Your task to perform on an android device: Search for sushi restaurants on Maps Image 0: 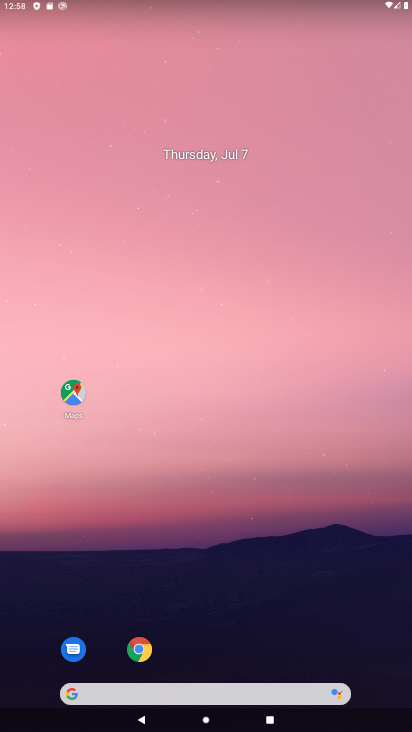
Step 0: drag from (191, 665) to (248, 112)
Your task to perform on an android device: Search for sushi restaurants on Maps Image 1: 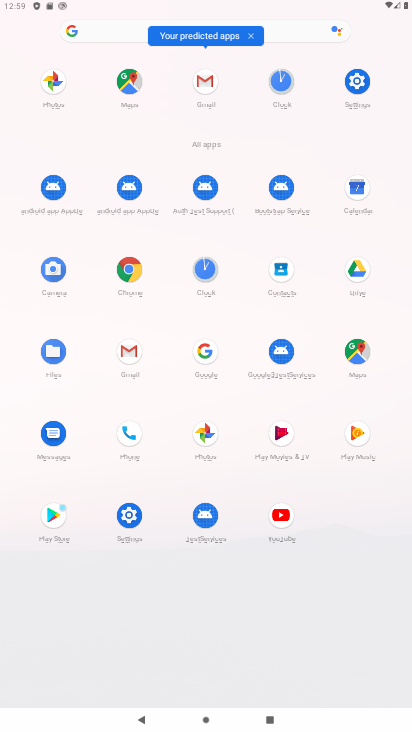
Step 1: click (355, 357)
Your task to perform on an android device: Search for sushi restaurants on Maps Image 2: 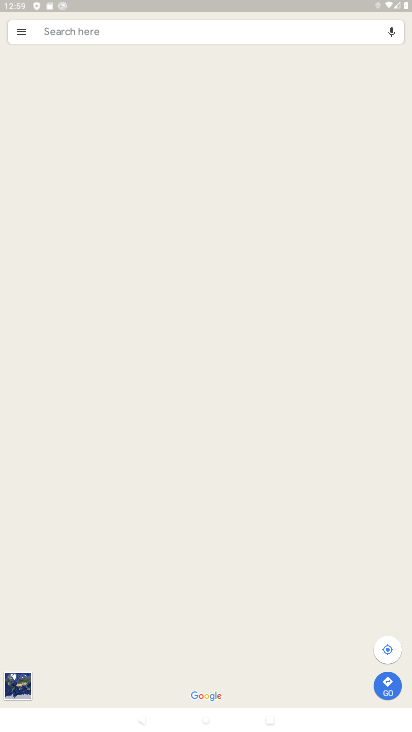
Step 2: click (161, 34)
Your task to perform on an android device: Search for sushi restaurants on Maps Image 3: 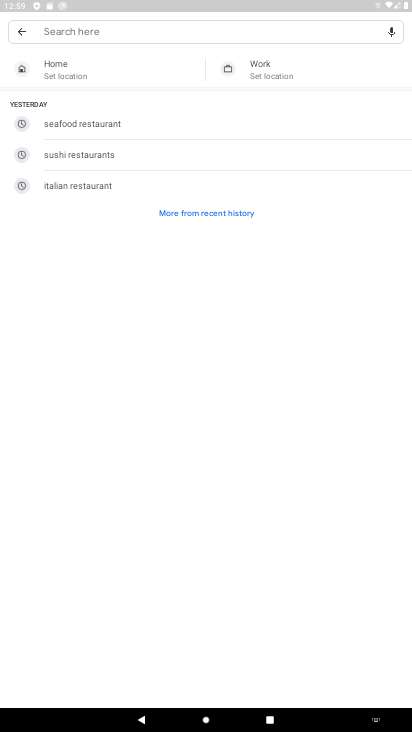
Step 3: type "sushi restaurants"
Your task to perform on an android device: Search for sushi restaurants on Maps Image 4: 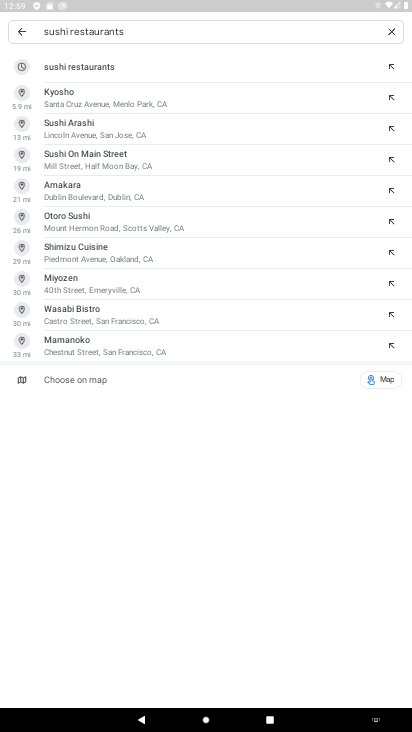
Step 4: click (130, 60)
Your task to perform on an android device: Search for sushi restaurants on Maps Image 5: 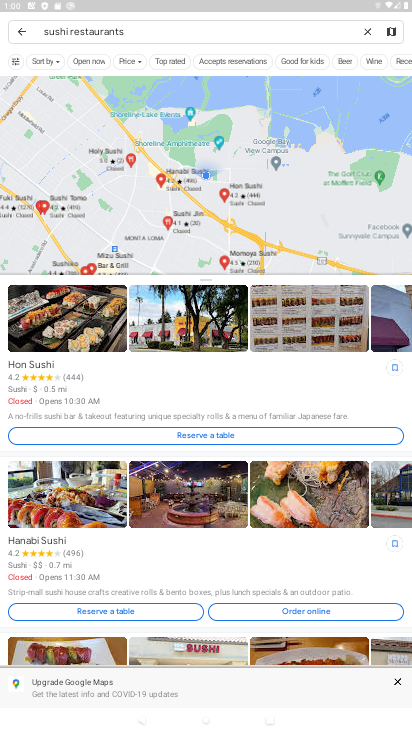
Step 5: task complete